Your task to perform on an android device: make emails show in primary in the gmail app Image 0: 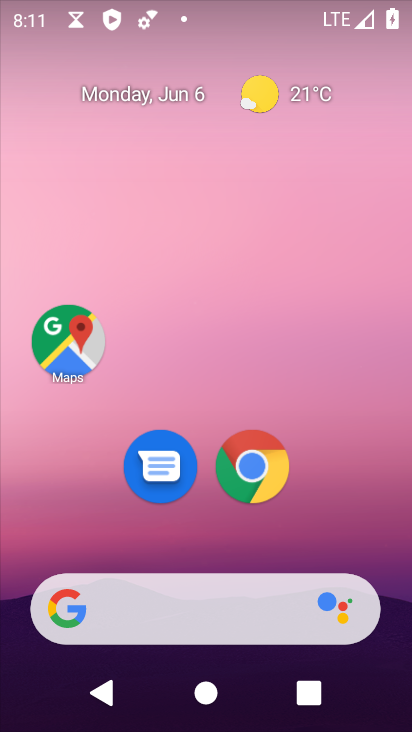
Step 0: drag from (209, 501) to (249, 84)
Your task to perform on an android device: make emails show in primary in the gmail app Image 1: 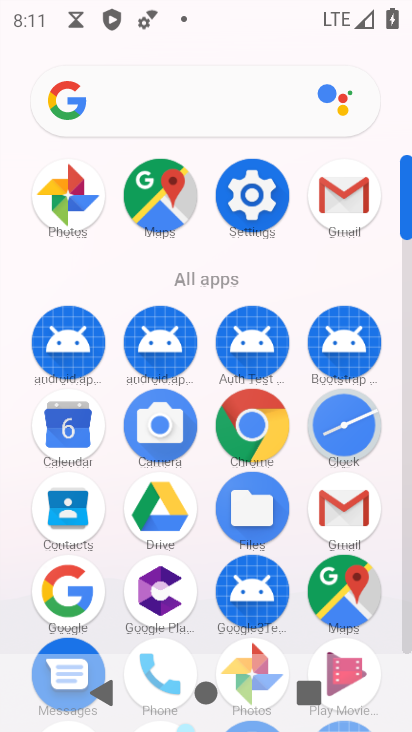
Step 1: drag from (207, 513) to (223, 157)
Your task to perform on an android device: make emails show in primary in the gmail app Image 2: 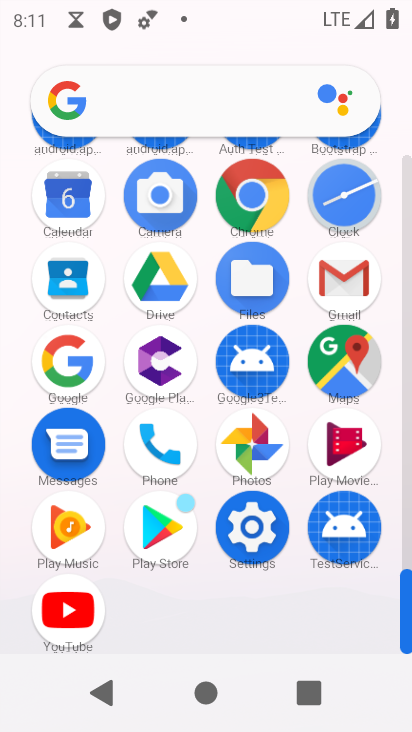
Step 2: click (331, 276)
Your task to perform on an android device: make emails show in primary in the gmail app Image 3: 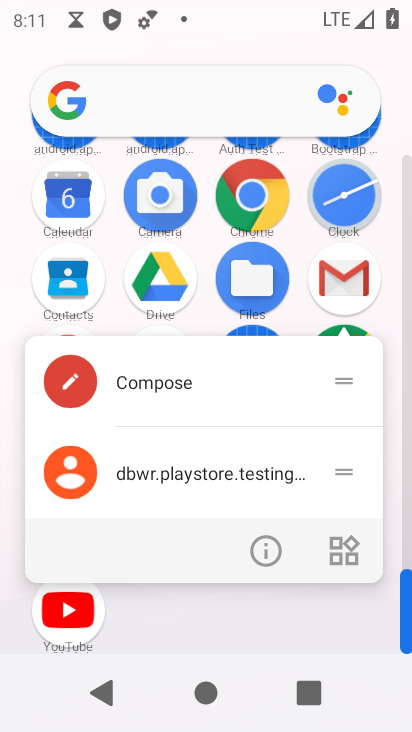
Step 3: click (275, 561)
Your task to perform on an android device: make emails show in primary in the gmail app Image 4: 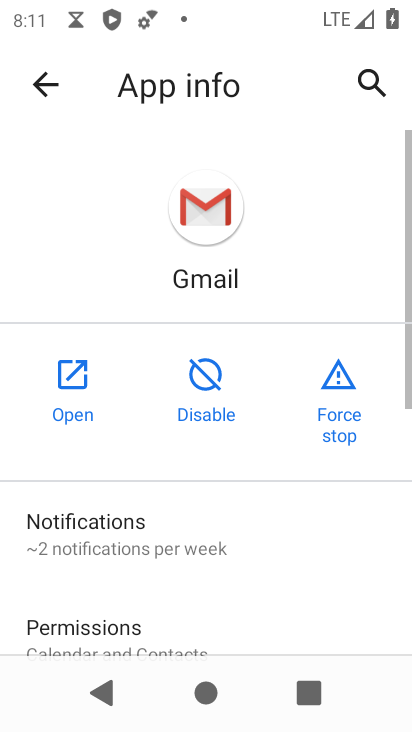
Step 4: click (86, 362)
Your task to perform on an android device: make emails show in primary in the gmail app Image 5: 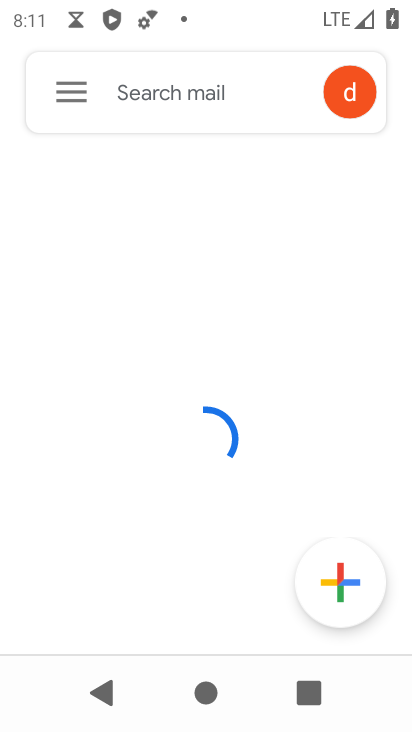
Step 5: click (61, 103)
Your task to perform on an android device: make emails show in primary in the gmail app Image 6: 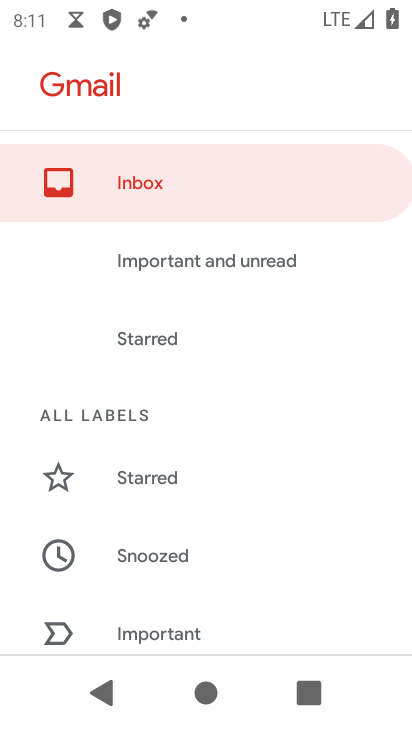
Step 6: click (187, 198)
Your task to perform on an android device: make emails show in primary in the gmail app Image 7: 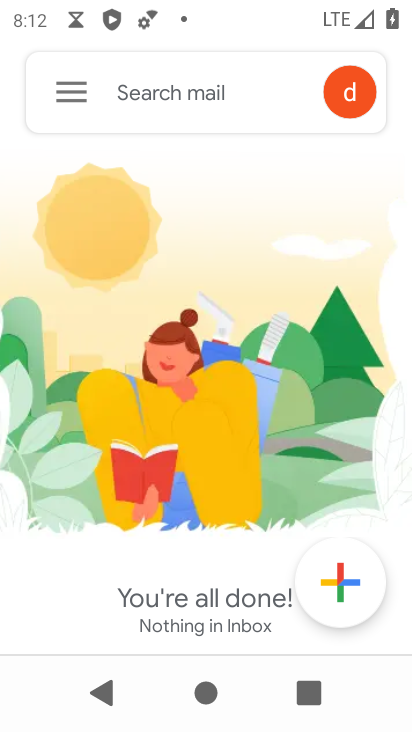
Step 7: task complete